Your task to perform on an android device: What's the weather going to be tomorrow? Image 0: 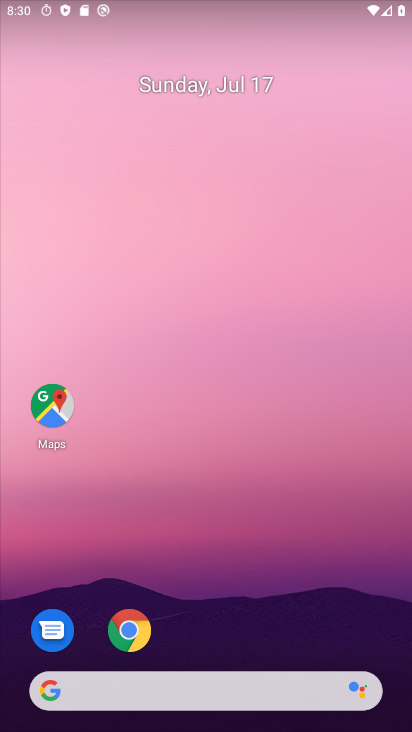
Step 0: click (106, 692)
Your task to perform on an android device: What's the weather going to be tomorrow? Image 1: 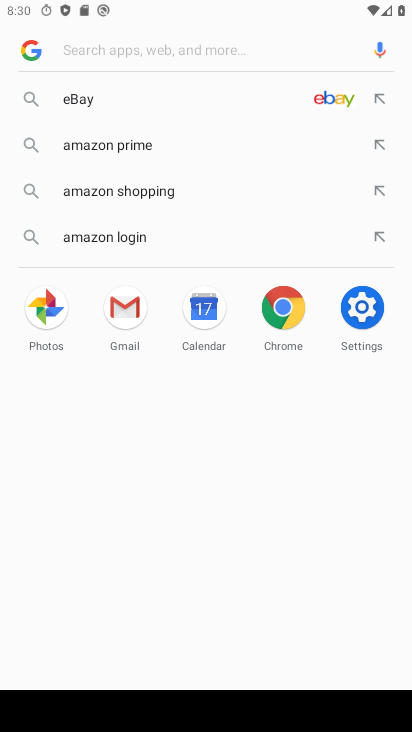
Step 1: type "What's the weather going to be tomorrow?"
Your task to perform on an android device: What's the weather going to be tomorrow? Image 2: 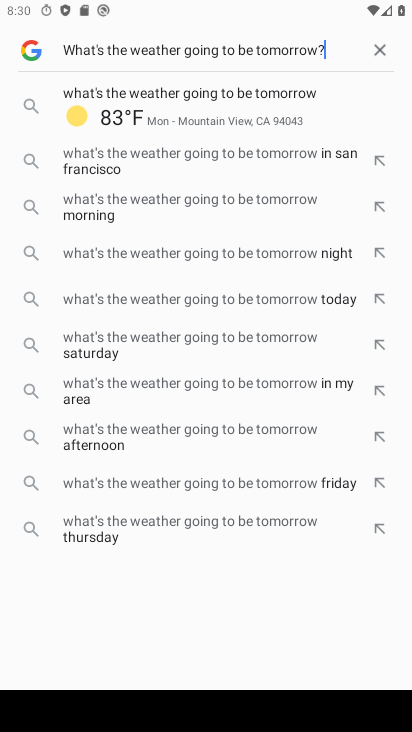
Step 2: type ""
Your task to perform on an android device: What's the weather going to be tomorrow? Image 3: 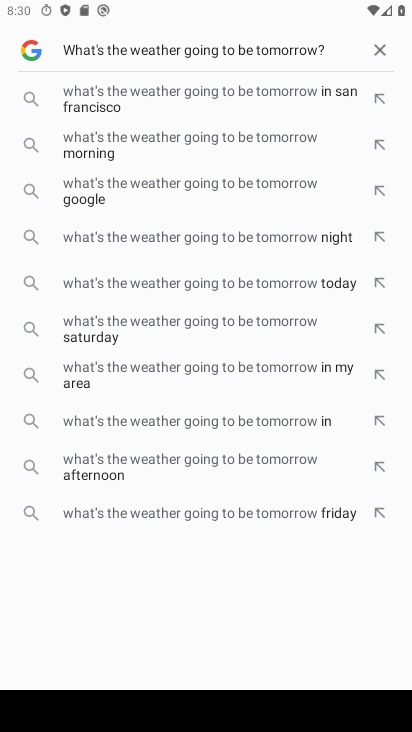
Step 3: type ""
Your task to perform on an android device: What's the weather going to be tomorrow? Image 4: 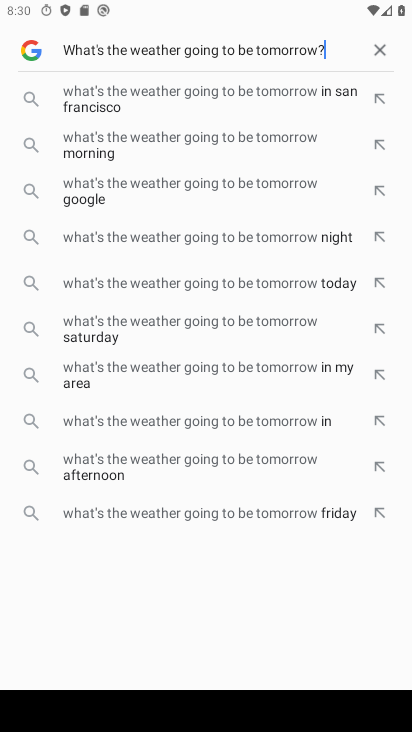
Step 4: type ""
Your task to perform on an android device: What's the weather going to be tomorrow? Image 5: 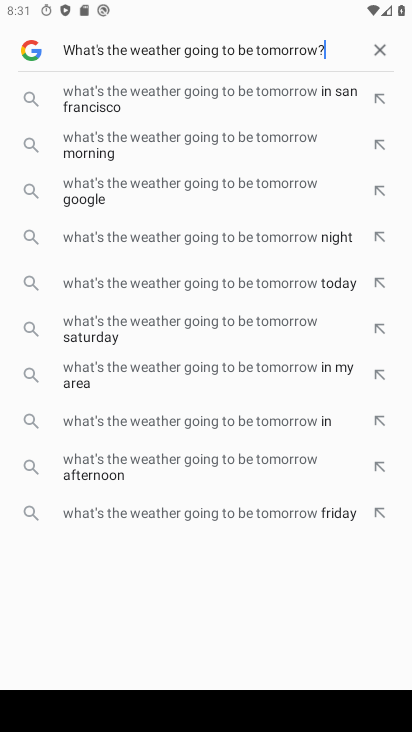
Step 5: task complete